Your task to perform on an android device: Open CNN.com Image 0: 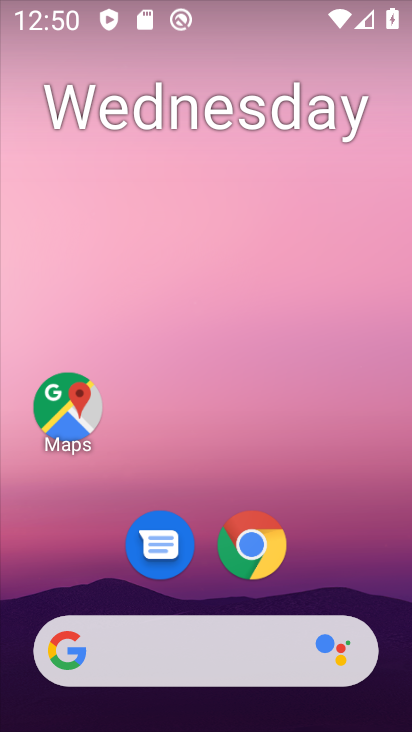
Step 0: click (251, 545)
Your task to perform on an android device: Open CNN.com Image 1: 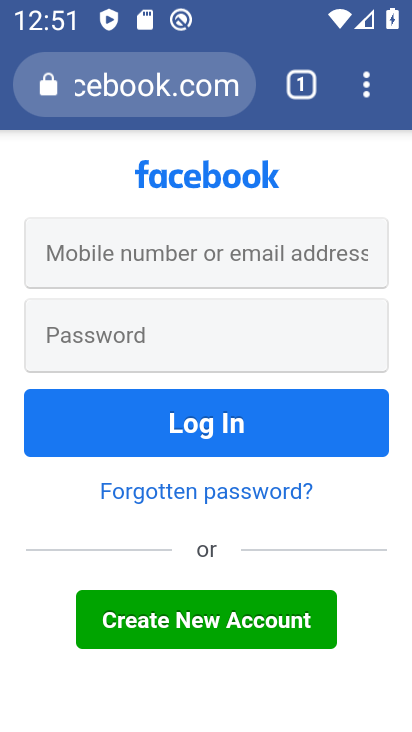
Step 1: click (134, 84)
Your task to perform on an android device: Open CNN.com Image 2: 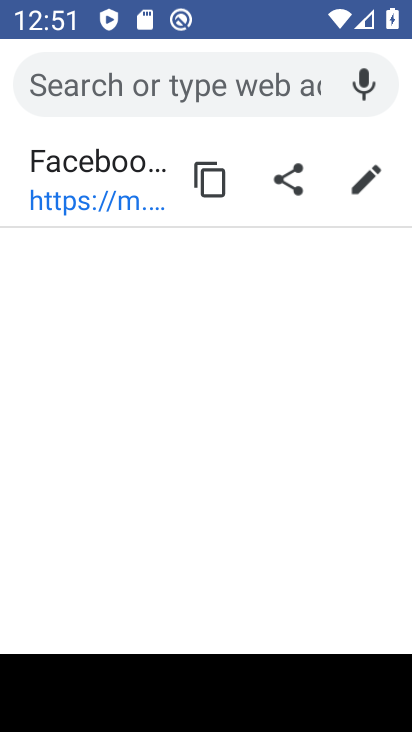
Step 2: type "CNN.com"
Your task to perform on an android device: Open CNN.com Image 3: 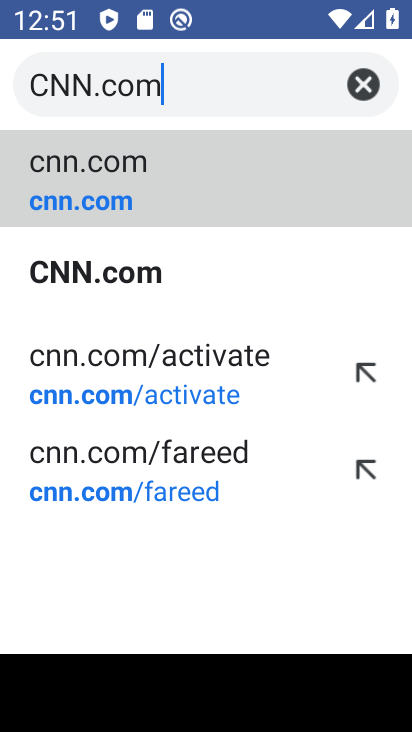
Step 3: click (193, 171)
Your task to perform on an android device: Open CNN.com Image 4: 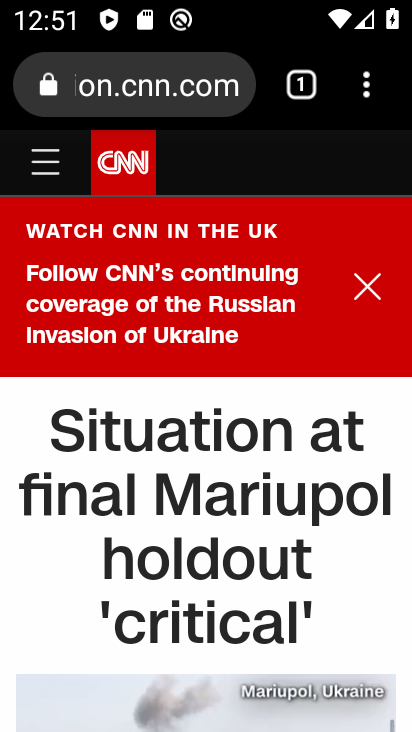
Step 4: task complete